Your task to perform on an android device: search for starred emails in the gmail app Image 0: 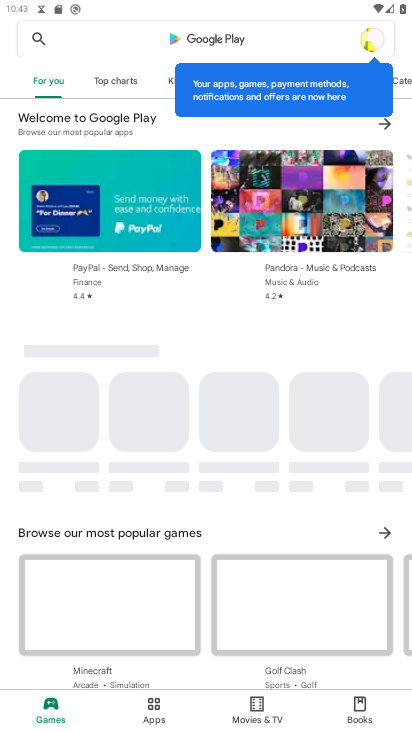
Step 0: press home button
Your task to perform on an android device: search for starred emails in the gmail app Image 1: 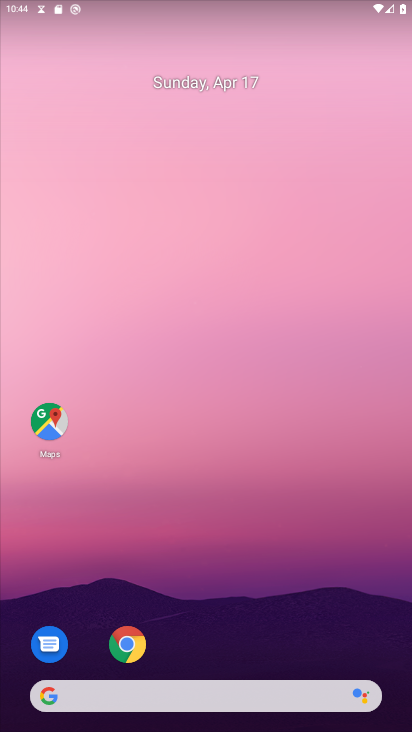
Step 1: drag from (203, 492) to (310, 7)
Your task to perform on an android device: search for starred emails in the gmail app Image 2: 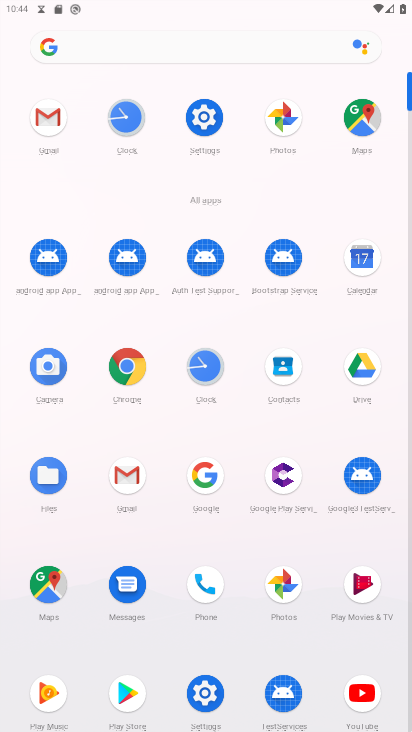
Step 2: click (133, 479)
Your task to perform on an android device: search for starred emails in the gmail app Image 3: 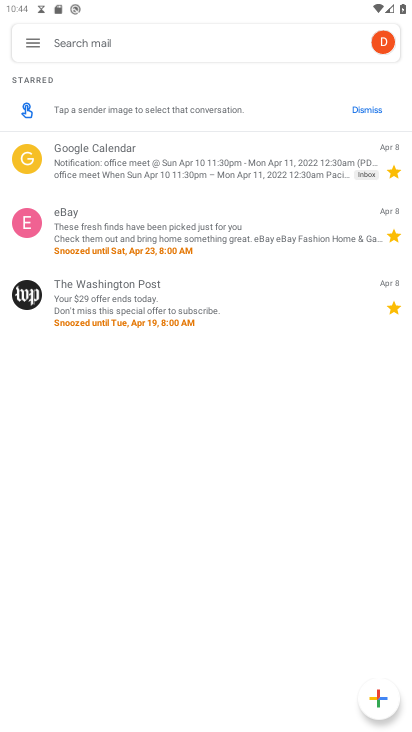
Step 3: click (28, 37)
Your task to perform on an android device: search for starred emails in the gmail app Image 4: 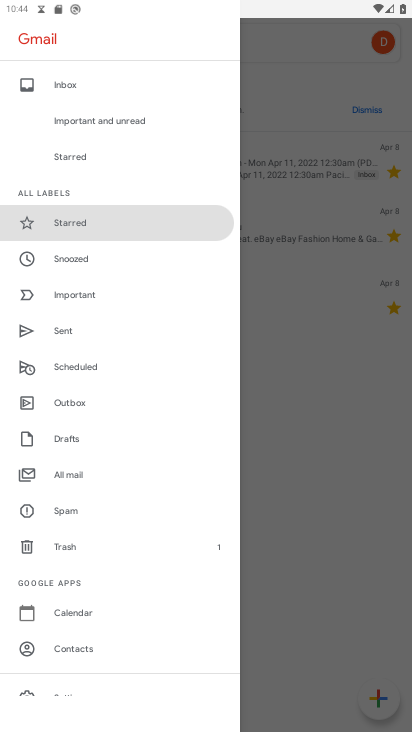
Step 4: click (83, 223)
Your task to perform on an android device: search for starred emails in the gmail app Image 5: 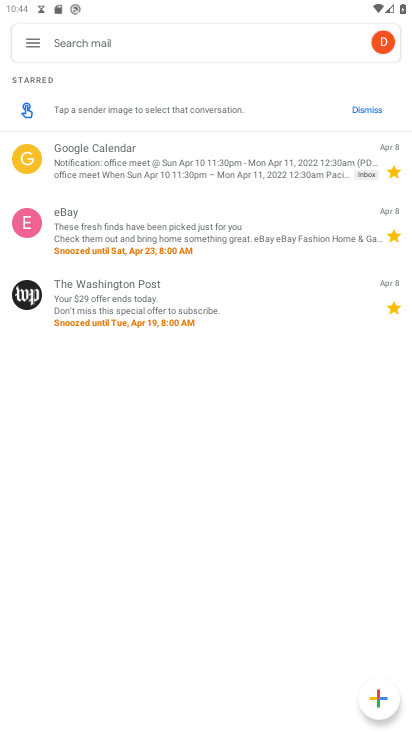
Step 5: task complete